Your task to perform on an android device: change timer sound Image 0: 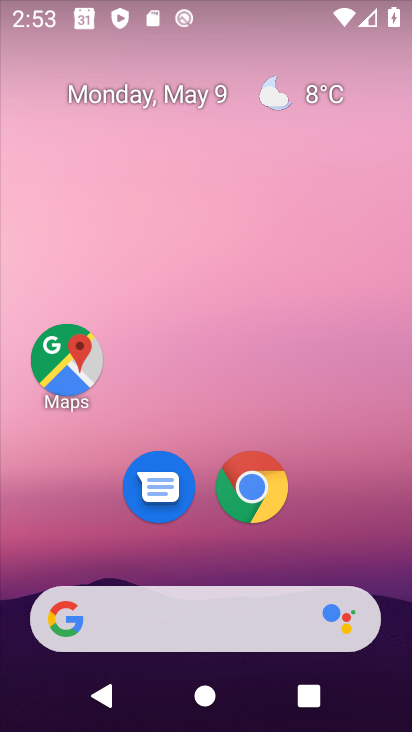
Step 0: drag from (206, 559) to (209, 46)
Your task to perform on an android device: change timer sound Image 1: 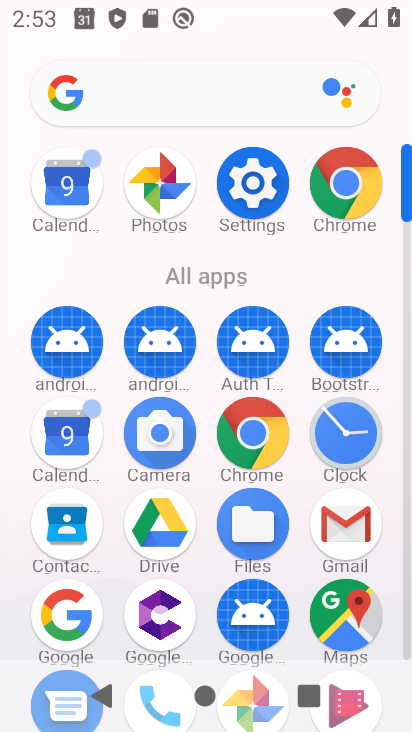
Step 1: click (343, 430)
Your task to perform on an android device: change timer sound Image 2: 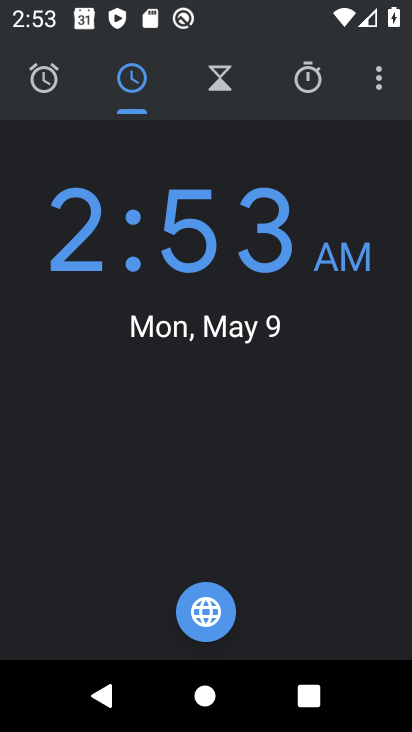
Step 2: click (378, 76)
Your task to perform on an android device: change timer sound Image 3: 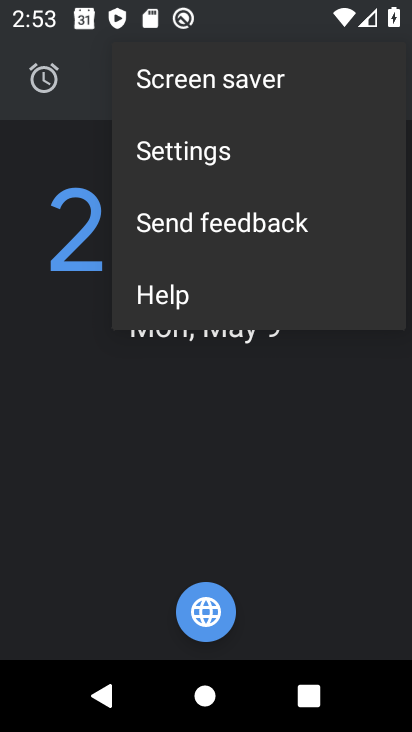
Step 3: click (244, 150)
Your task to perform on an android device: change timer sound Image 4: 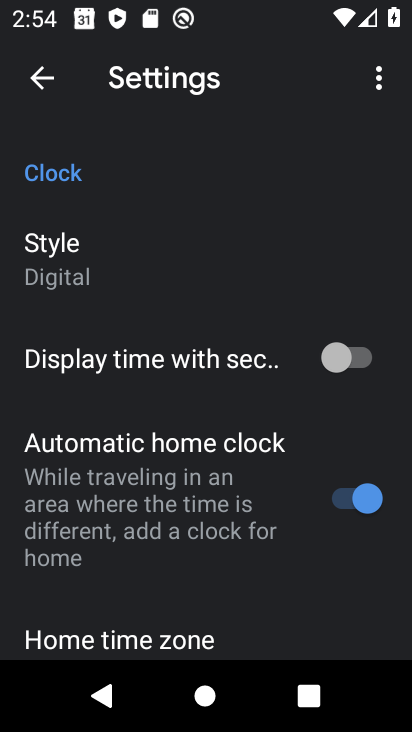
Step 4: drag from (153, 577) to (171, 260)
Your task to perform on an android device: change timer sound Image 5: 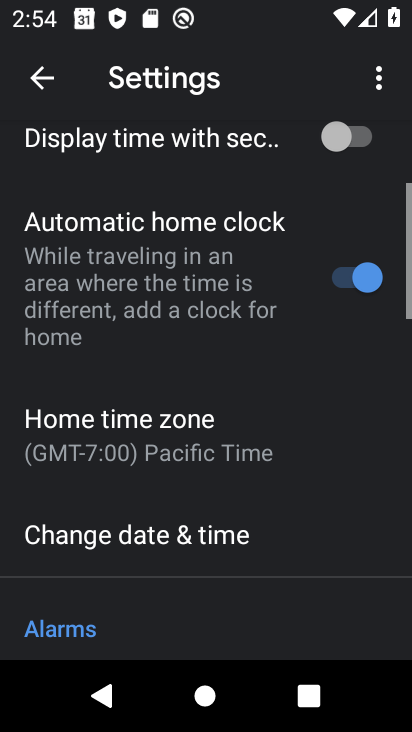
Step 5: drag from (178, 209) to (182, 155)
Your task to perform on an android device: change timer sound Image 6: 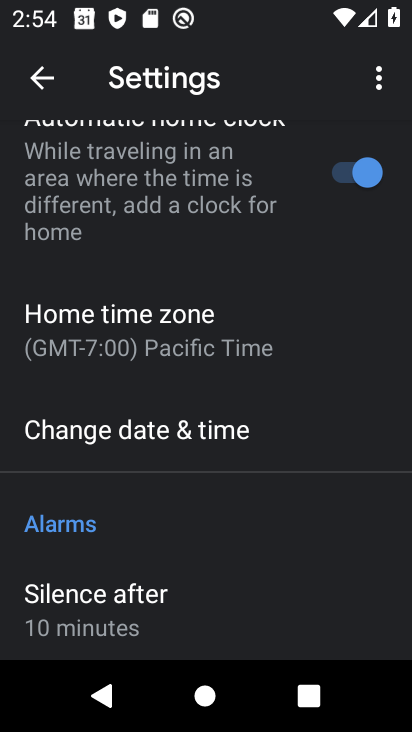
Step 6: drag from (188, 608) to (160, 184)
Your task to perform on an android device: change timer sound Image 7: 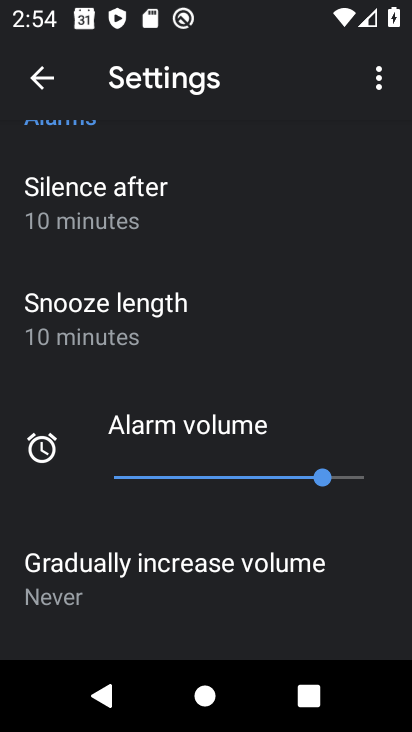
Step 7: drag from (188, 603) to (179, 158)
Your task to perform on an android device: change timer sound Image 8: 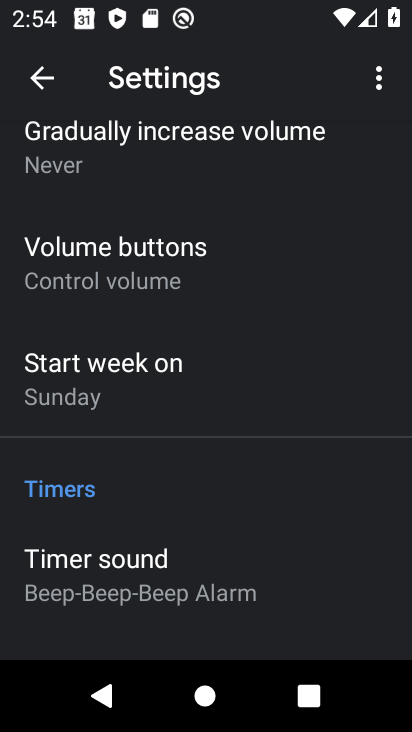
Step 8: click (186, 569)
Your task to perform on an android device: change timer sound Image 9: 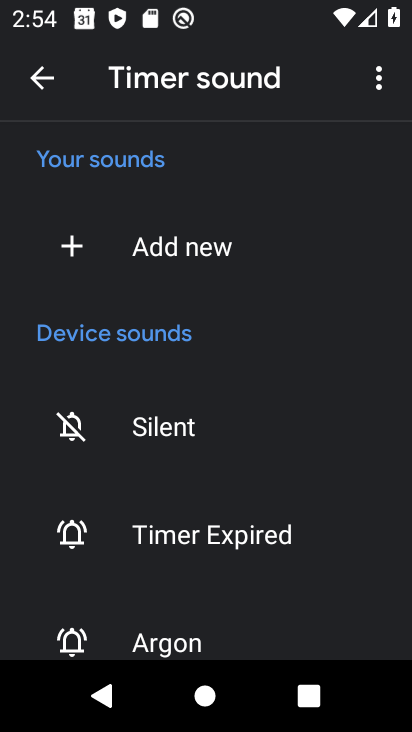
Step 9: drag from (139, 614) to (111, 288)
Your task to perform on an android device: change timer sound Image 10: 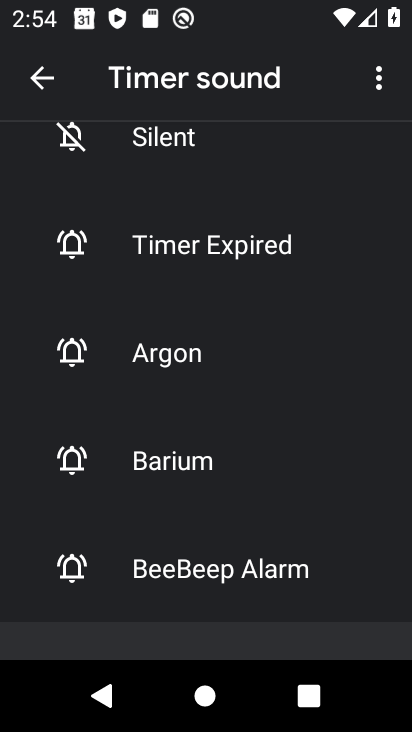
Step 10: click (119, 577)
Your task to perform on an android device: change timer sound Image 11: 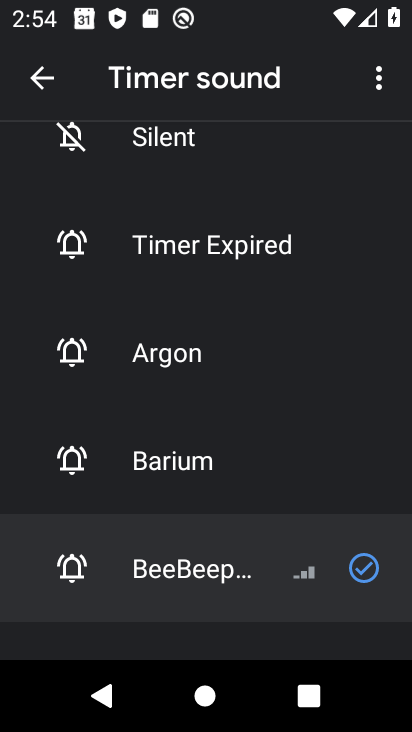
Step 11: task complete